Your task to perform on an android device: find which apps use the phone's location Image 0: 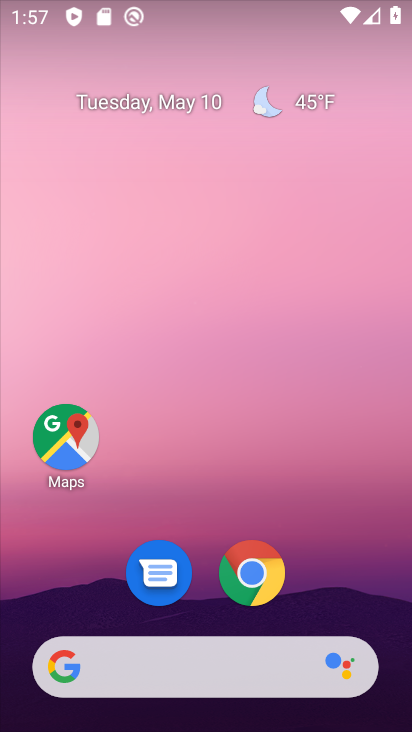
Step 0: drag from (235, 581) to (276, 105)
Your task to perform on an android device: find which apps use the phone's location Image 1: 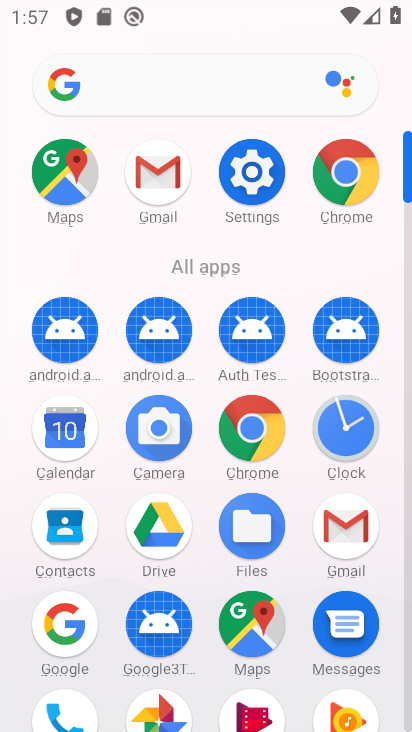
Step 1: click (251, 182)
Your task to perform on an android device: find which apps use the phone's location Image 2: 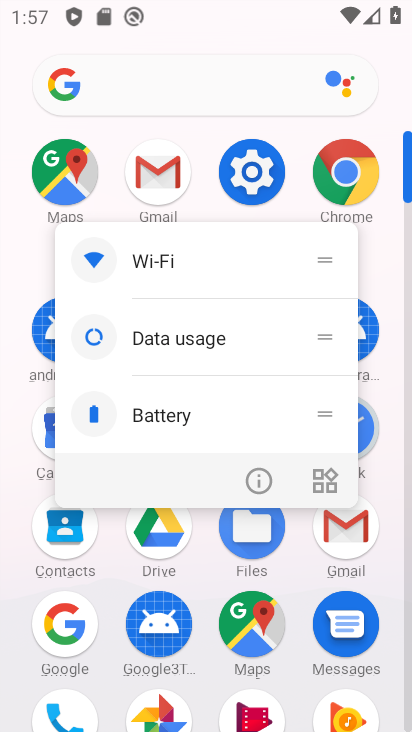
Step 2: click (259, 192)
Your task to perform on an android device: find which apps use the phone's location Image 3: 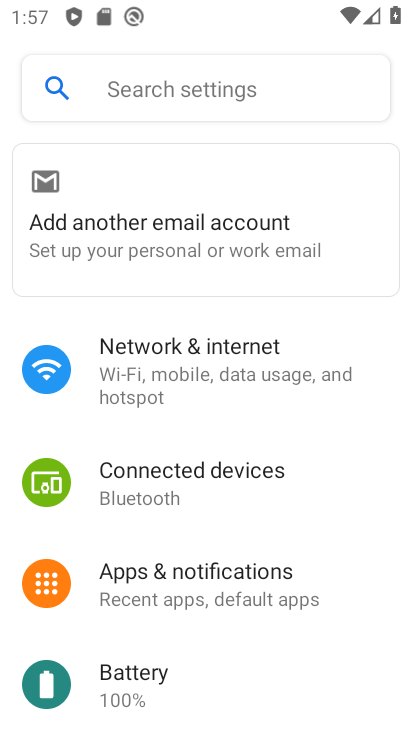
Step 3: drag from (170, 663) to (229, 299)
Your task to perform on an android device: find which apps use the phone's location Image 4: 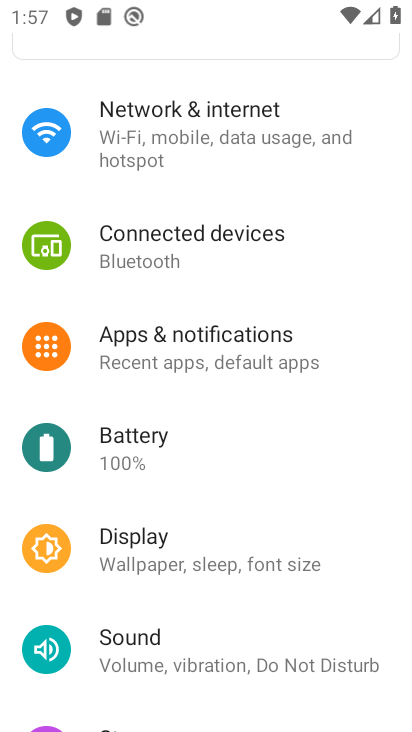
Step 4: drag from (208, 663) to (294, 260)
Your task to perform on an android device: find which apps use the phone's location Image 5: 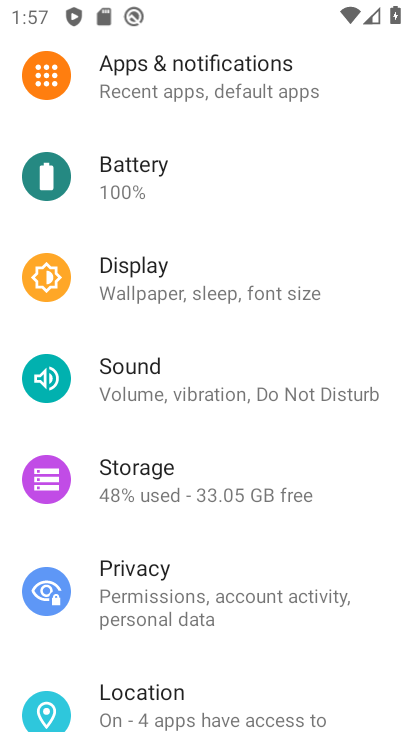
Step 5: drag from (173, 637) to (210, 344)
Your task to perform on an android device: find which apps use the phone's location Image 6: 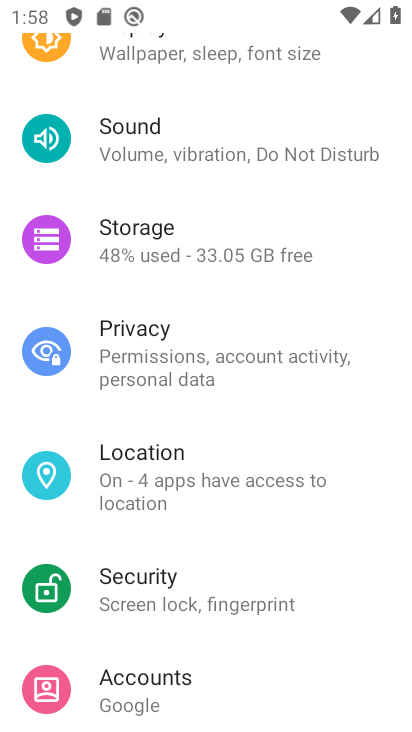
Step 6: click (183, 489)
Your task to perform on an android device: find which apps use the phone's location Image 7: 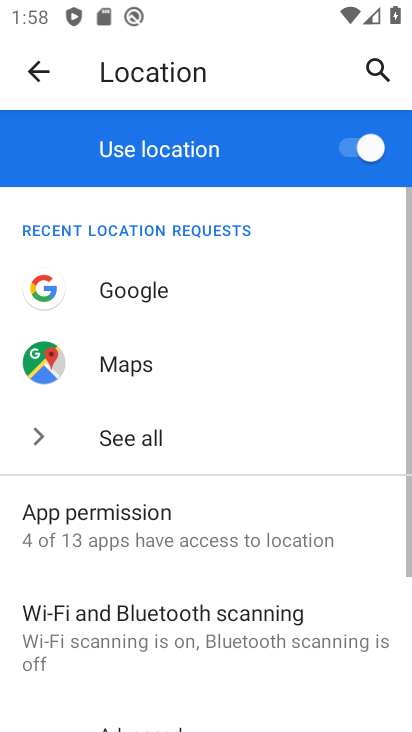
Step 7: drag from (159, 572) to (188, 355)
Your task to perform on an android device: find which apps use the phone's location Image 8: 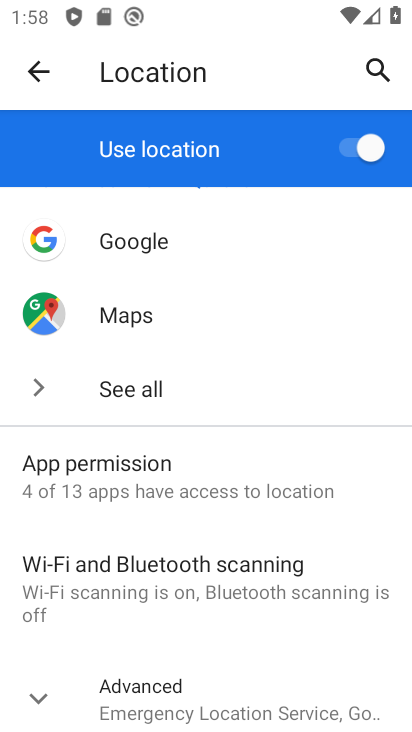
Step 8: click (116, 475)
Your task to perform on an android device: find which apps use the phone's location Image 9: 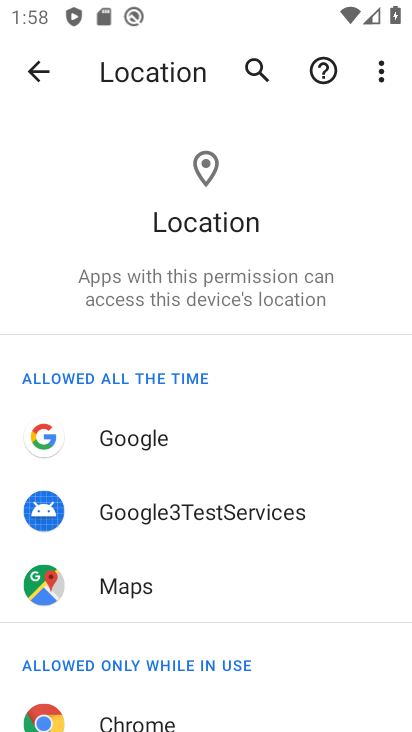
Step 9: task complete